Your task to perform on an android device: add a contact Image 0: 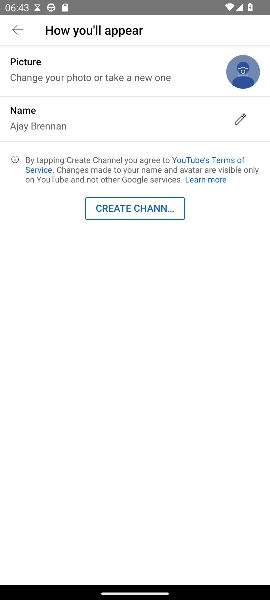
Step 0: press home button
Your task to perform on an android device: add a contact Image 1: 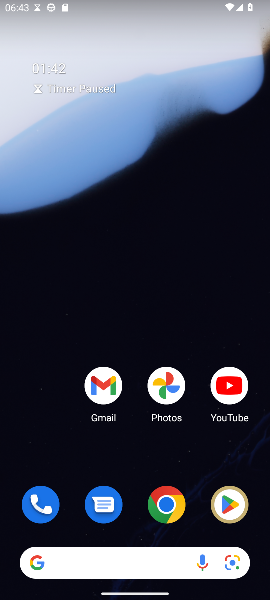
Step 1: drag from (105, 577) to (198, 295)
Your task to perform on an android device: add a contact Image 2: 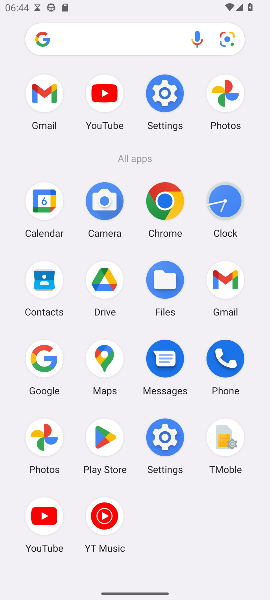
Step 2: click (42, 282)
Your task to perform on an android device: add a contact Image 3: 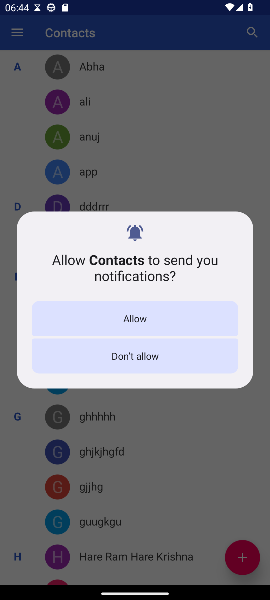
Step 3: click (138, 318)
Your task to perform on an android device: add a contact Image 4: 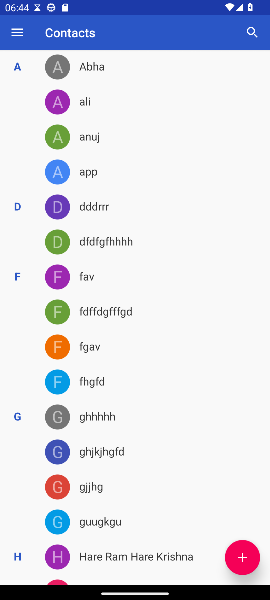
Step 4: click (244, 555)
Your task to perform on an android device: add a contact Image 5: 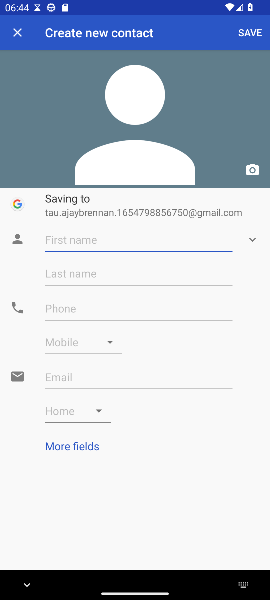
Step 5: type "Nathan"
Your task to perform on an android device: add a contact Image 6: 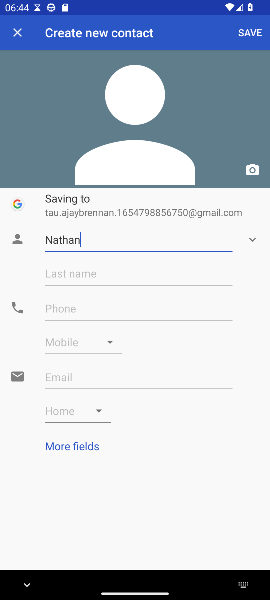
Step 6: click (185, 278)
Your task to perform on an android device: add a contact Image 7: 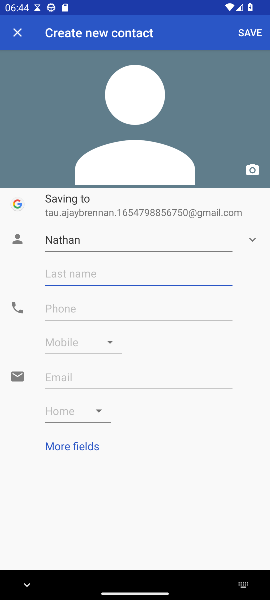
Step 7: type "Jhonsan"
Your task to perform on an android device: add a contact Image 8: 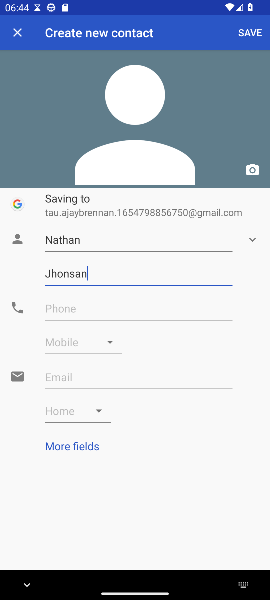
Step 8: click (110, 307)
Your task to perform on an android device: add a contact Image 9: 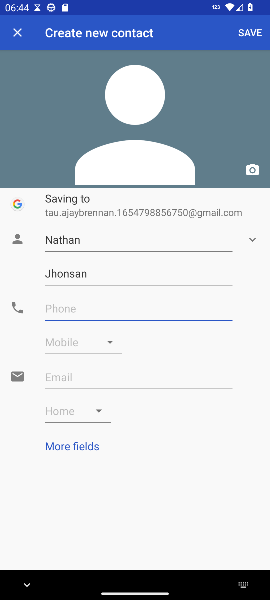
Step 9: type "099887712434"
Your task to perform on an android device: add a contact Image 10: 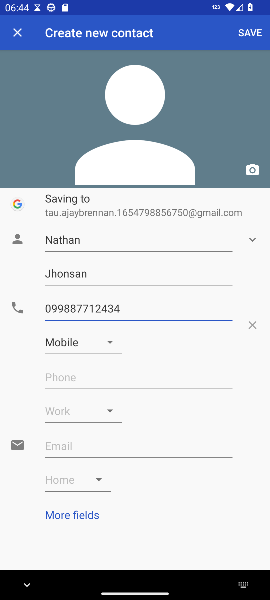
Step 10: click (253, 35)
Your task to perform on an android device: add a contact Image 11: 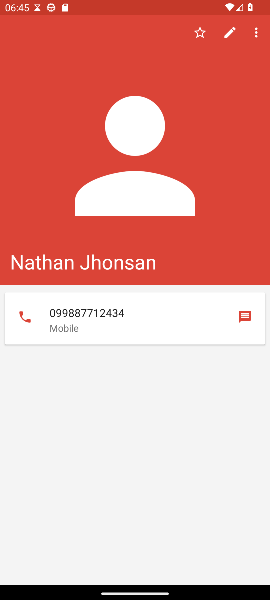
Step 11: task complete